Your task to perform on an android device: Show me recent news Image 0: 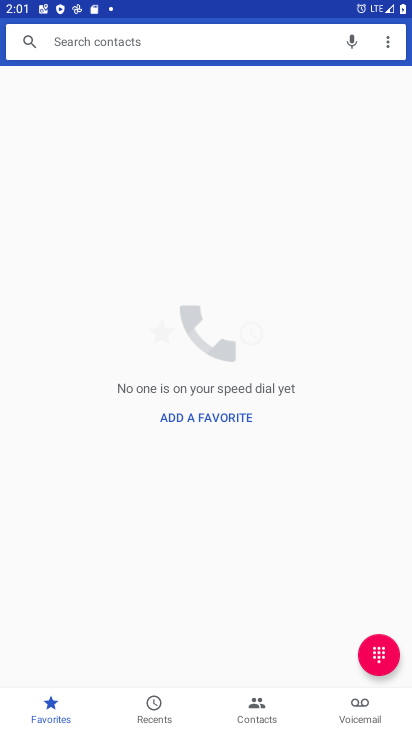
Step 0: drag from (312, 648) to (329, 201)
Your task to perform on an android device: Show me recent news Image 1: 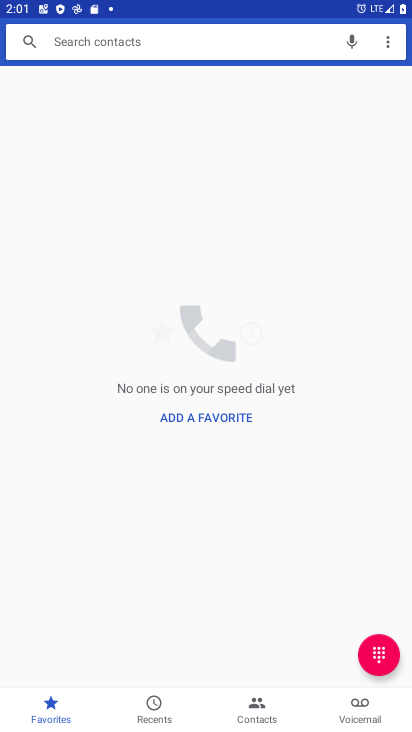
Step 1: press home button
Your task to perform on an android device: Show me recent news Image 2: 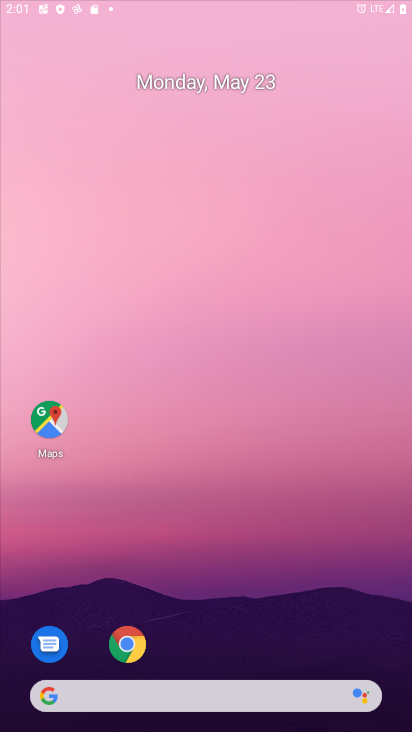
Step 2: drag from (338, 614) to (275, 77)
Your task to perform on an android device: Show me recent news Image 3: 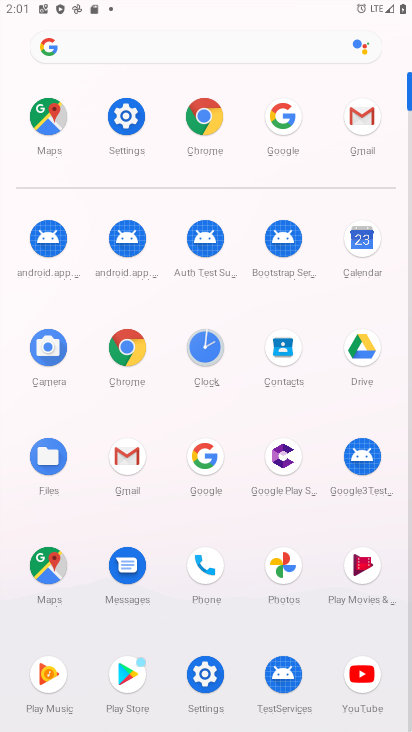
Step 3: click (193, 452)
Your task to perform on an android device: Show me recent news Image 4: 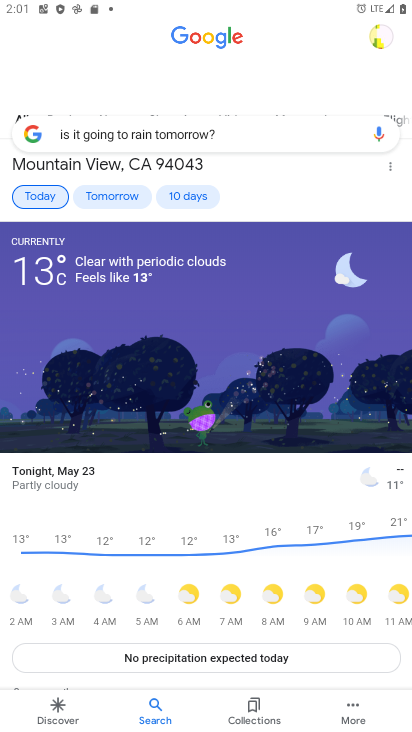
Step 4: press back button
Your task to perform on an android device: Show me recent news Image 5: 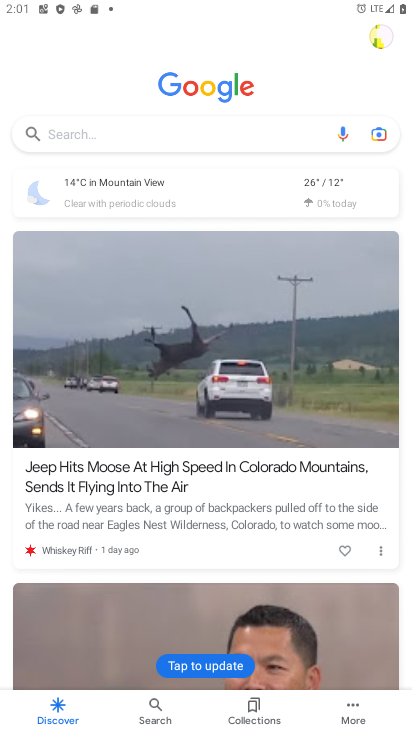
Step 5: click (142, 127)
Your task to perform on an android device: Show me recent news Image 6: 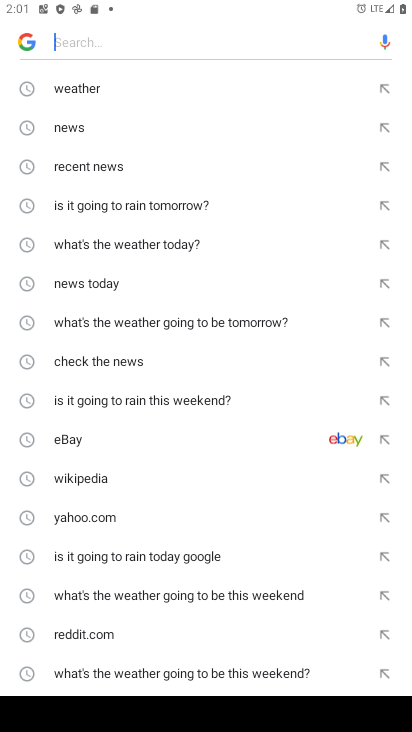
Step 6: click (98, 164)
Your task to perform on an android device: Show me recent news Image 7: 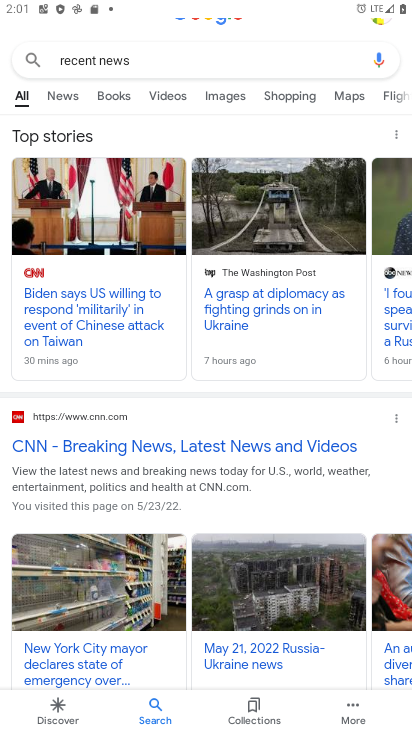
Step 7: task complete